Your task to perform on an android device: install app "Messenger Lite" Image 0: 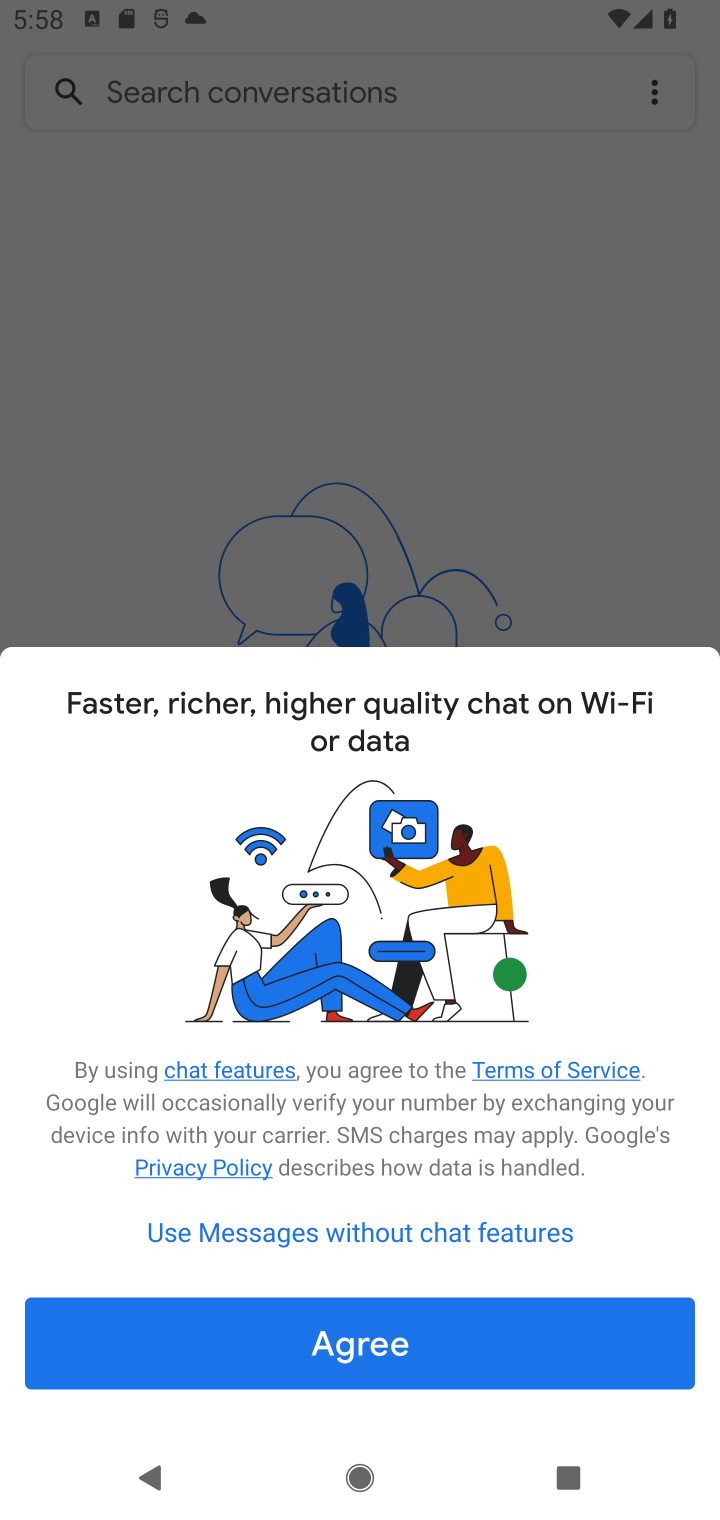
Step 0: press home button
Your task to perform on an android device: install app "Messenger Lite" Image 1: 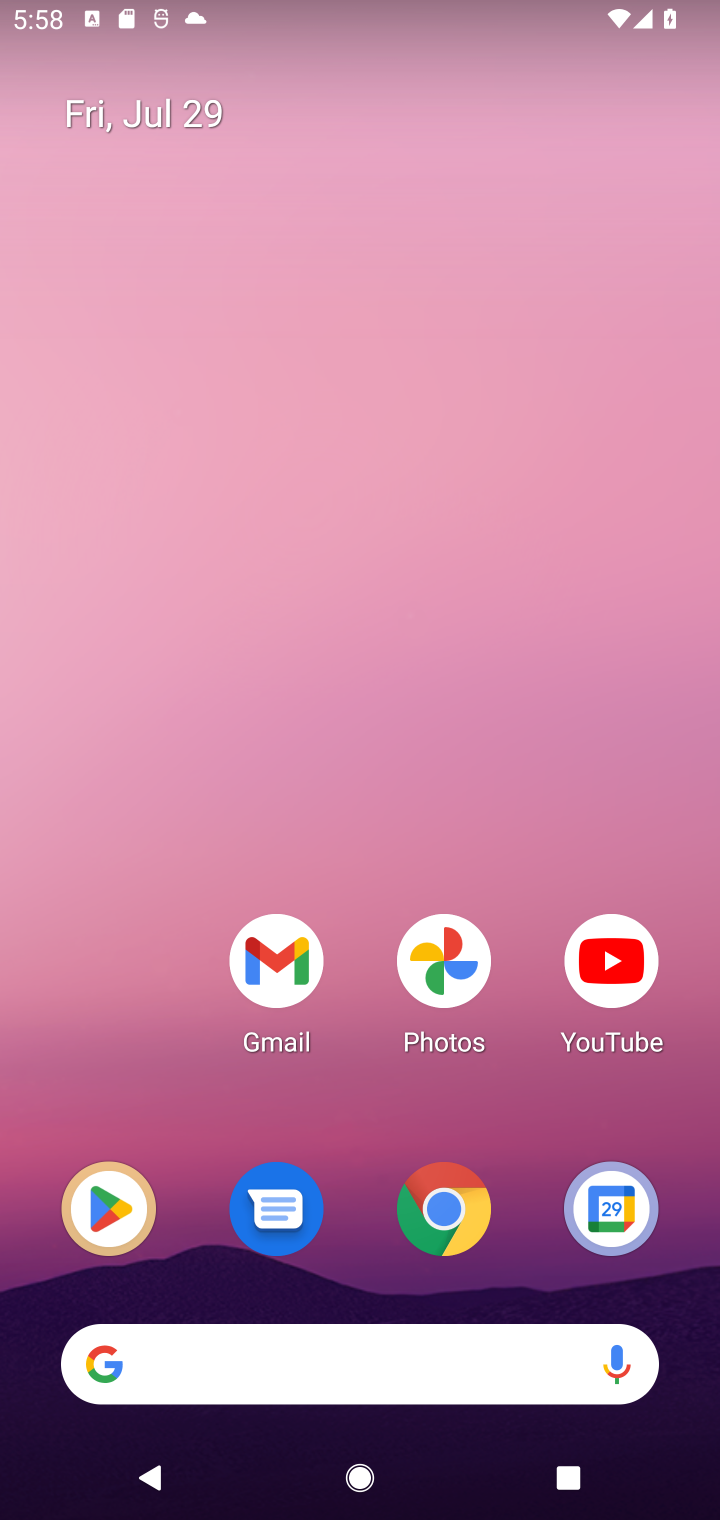
Step 1: click (111, 1218)
Your task to perform on an android device: install app "Messenger Lite" Image 2: 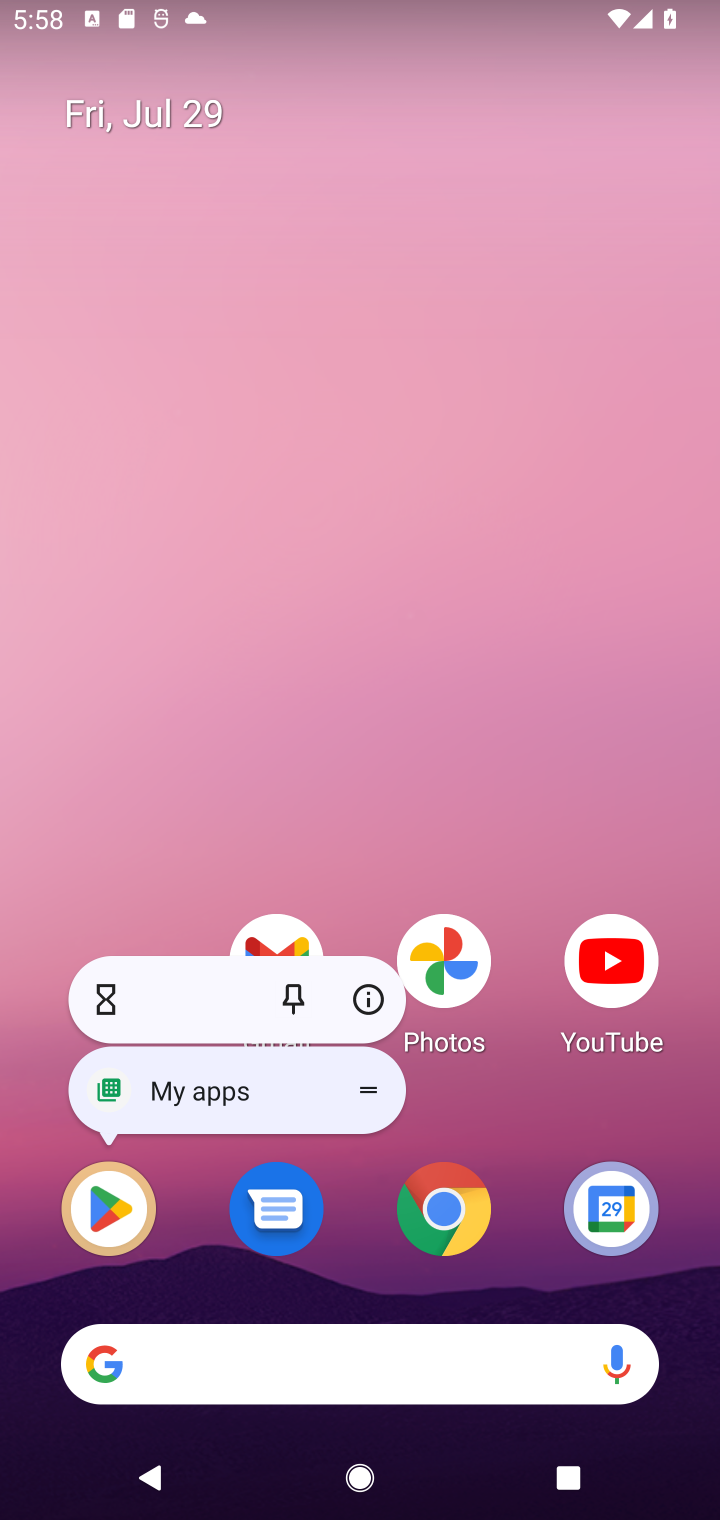
Step 2: click (111, 1218)
Your task to perform on an android device: install app "Messenger Lite" Image 3: 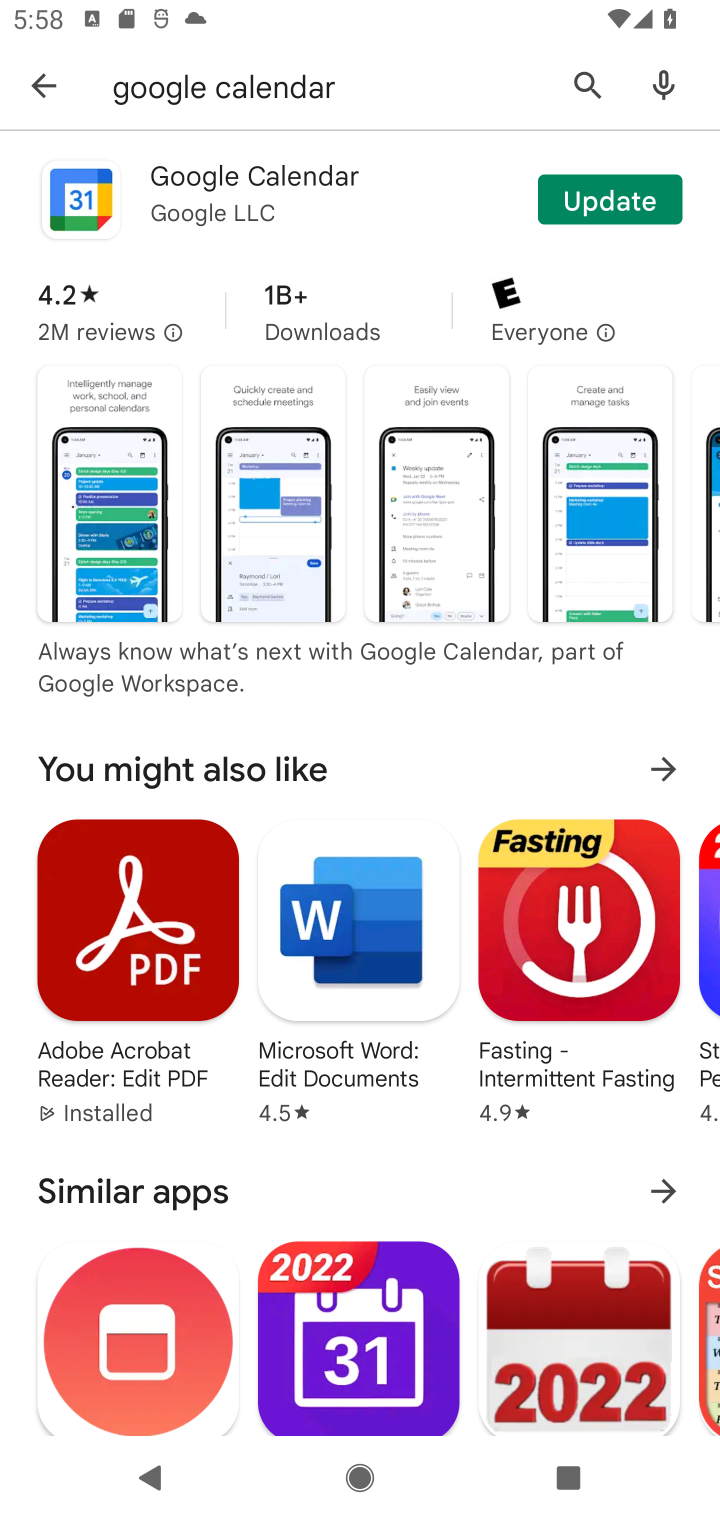
Step 3: click (584, 84)
Your task to perform on an android device: install app "Messenger Lite" Image 4: 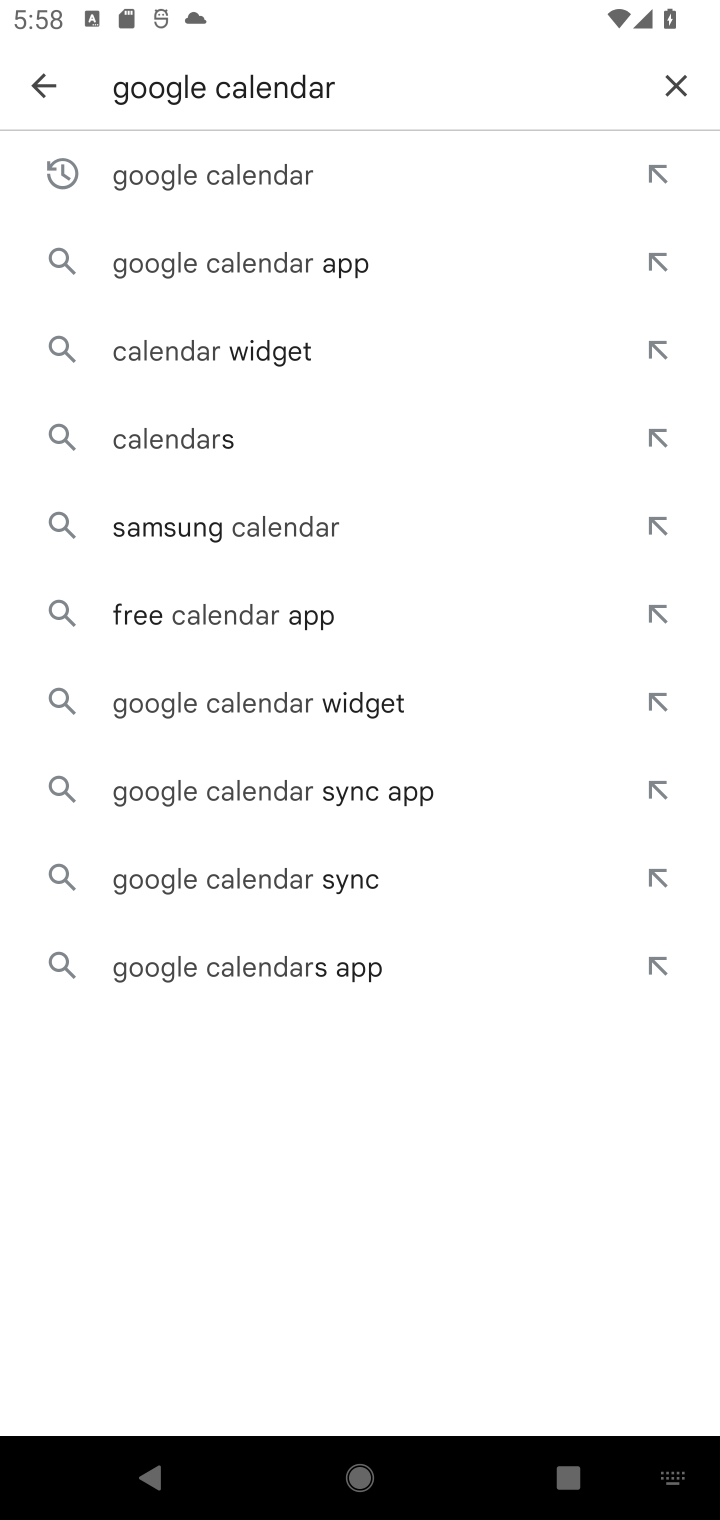
Step 4: click (662, 81)
Your task to perform on an android device: install app "Messenger Lite" Image 5: 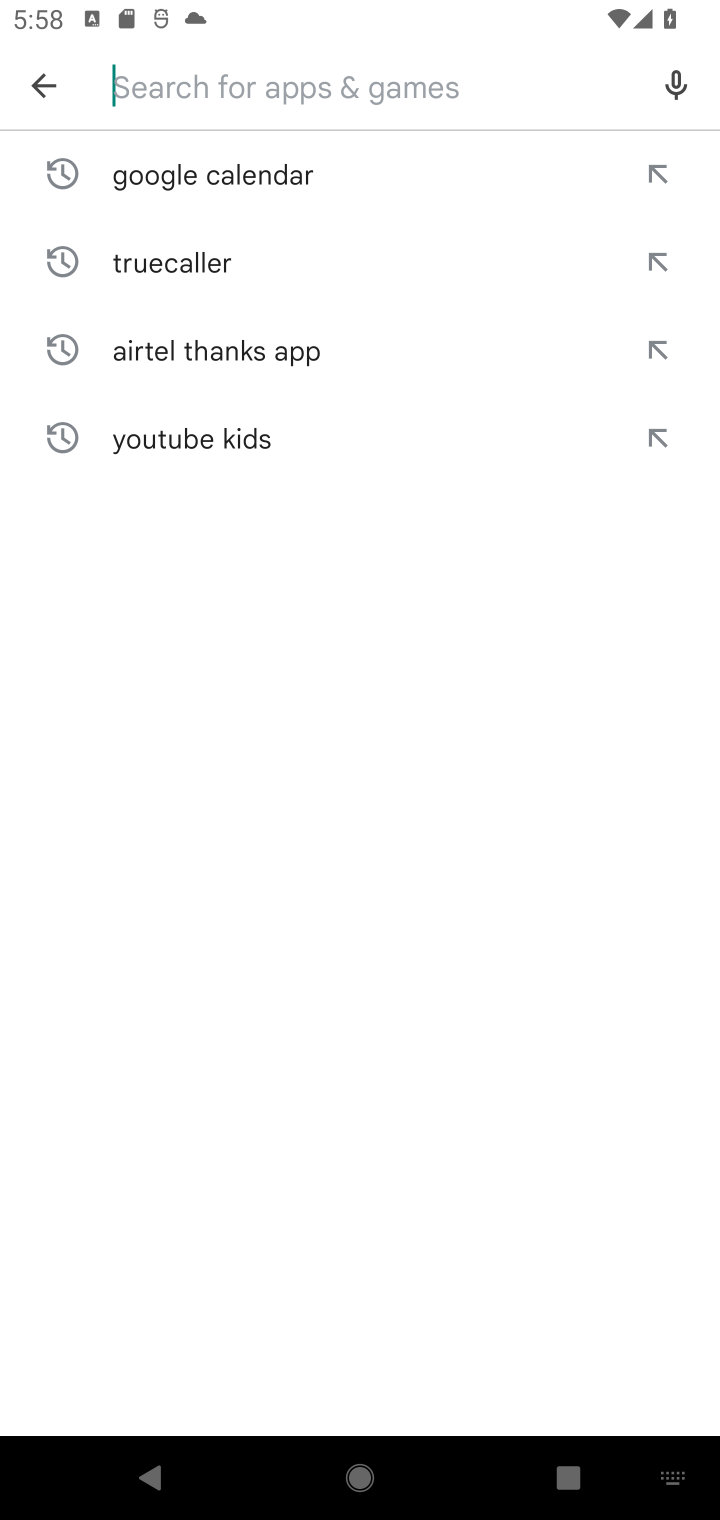
Step 5: click (398, 87)
Your task to perform on an android device: install app "Messenger Lite" Image 6: 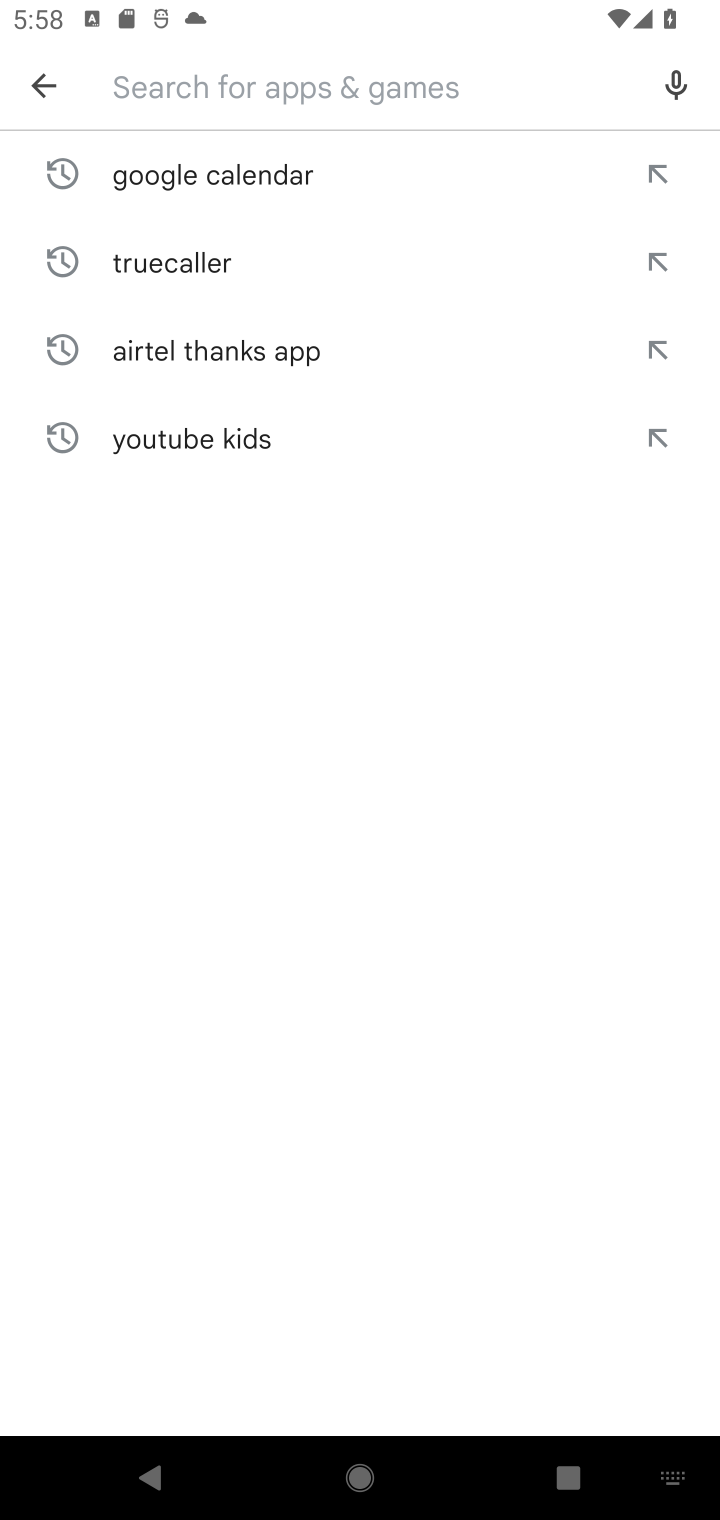
Step 6: type "Messenger Lite"
Your task to perform on an android device: install app "Messenger Lite" Image 7: 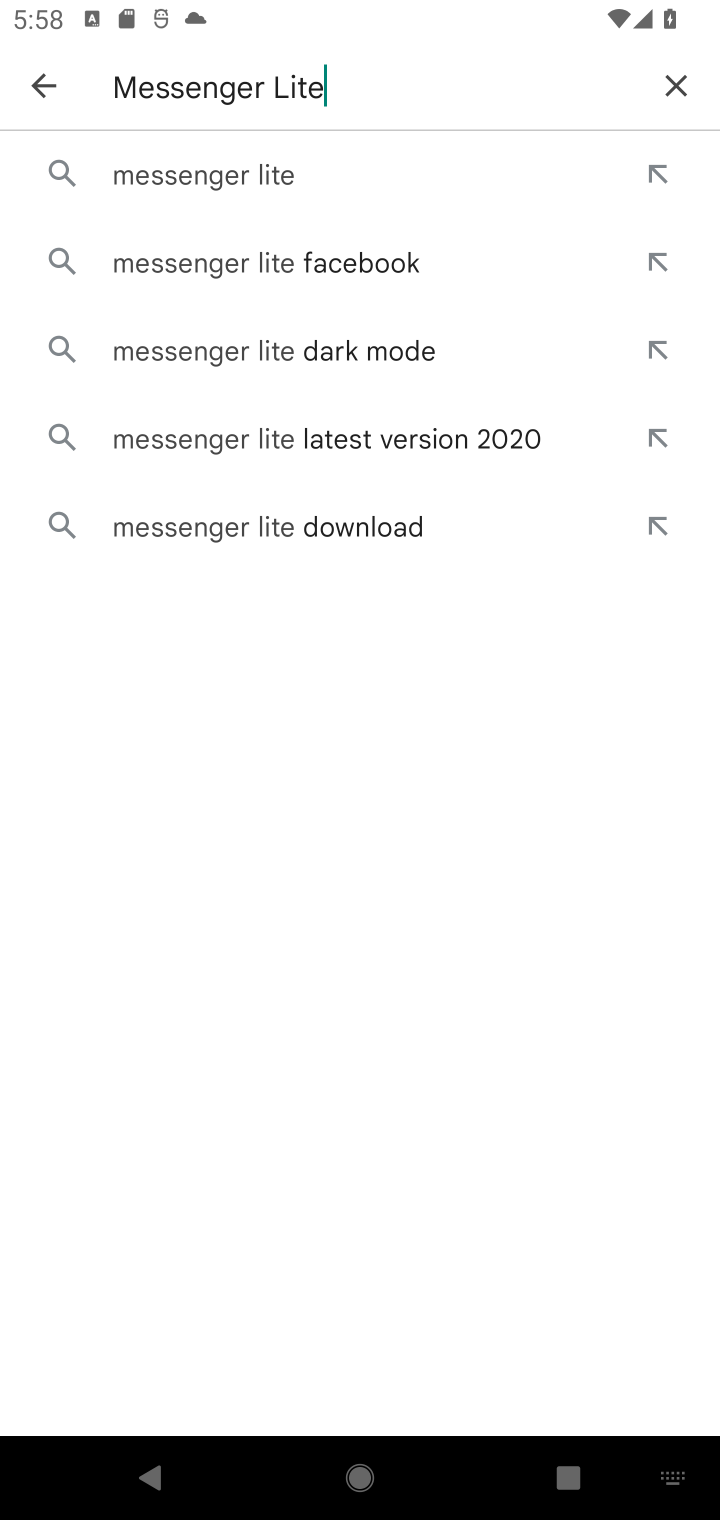
Step 7: click (199, 179)
Your task to perform on an android device: install app "Messenger Lite" Image 8: 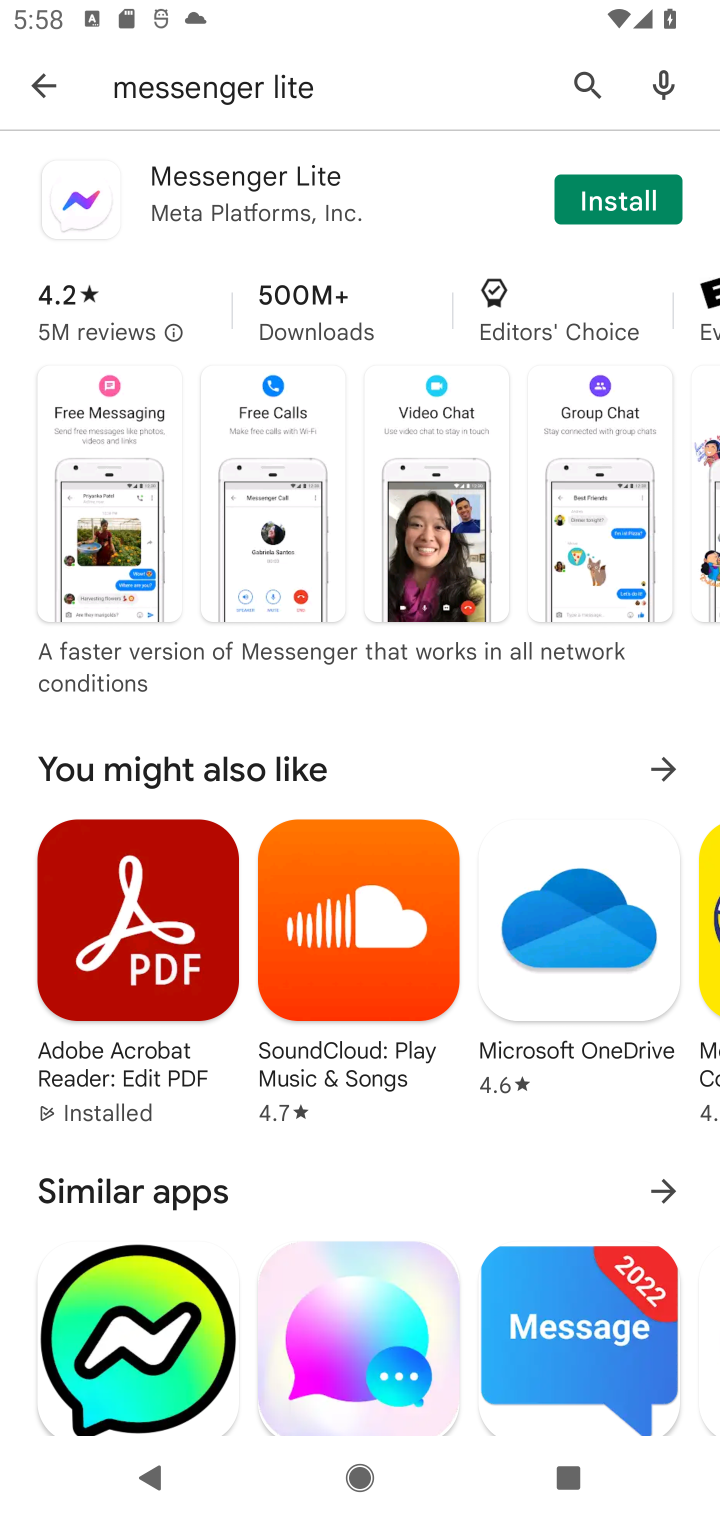
Step 8: click (596, 209)
Your task to perform on an android device: install app "Messenger Lite" Image 9: 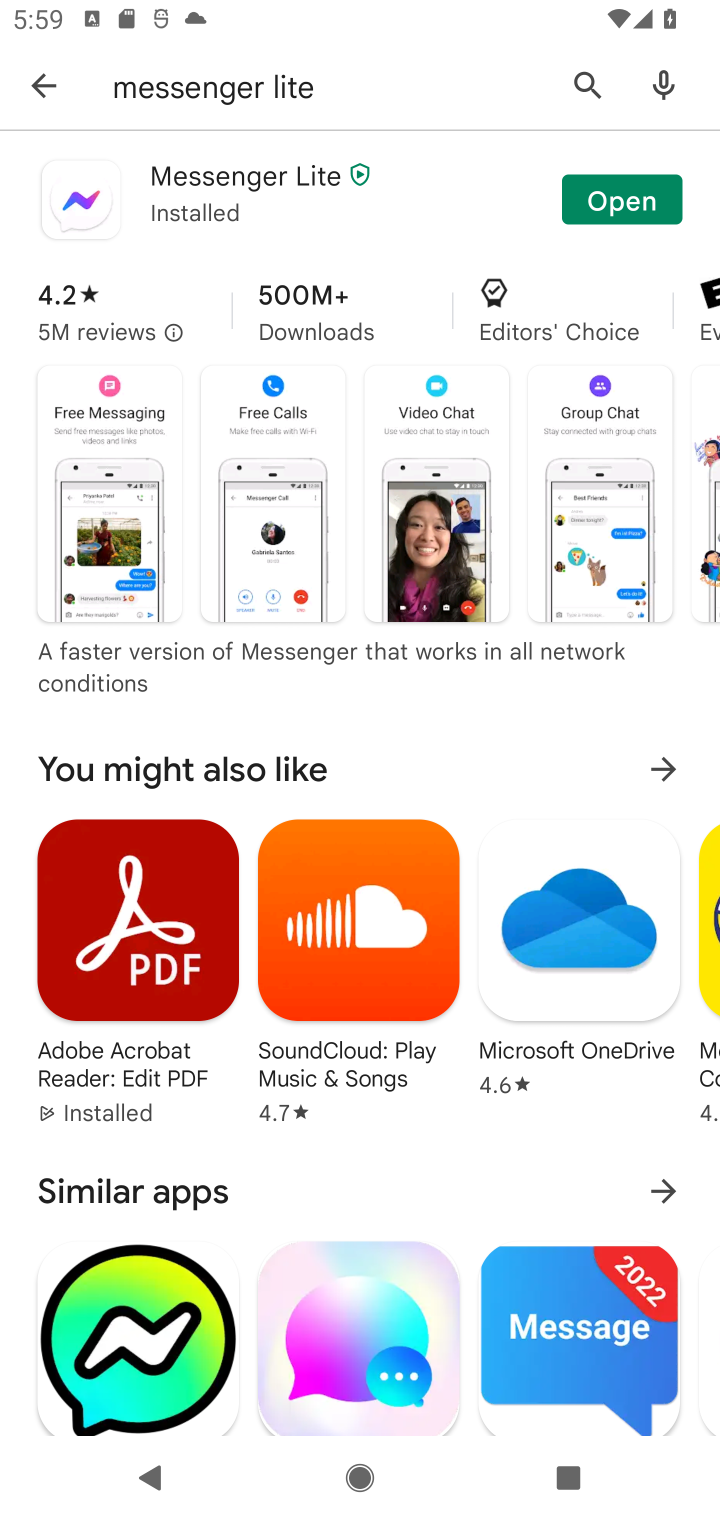
Step 9: task complete